Your task to perform on an android device: delete a single message in the gmail app Image 0: 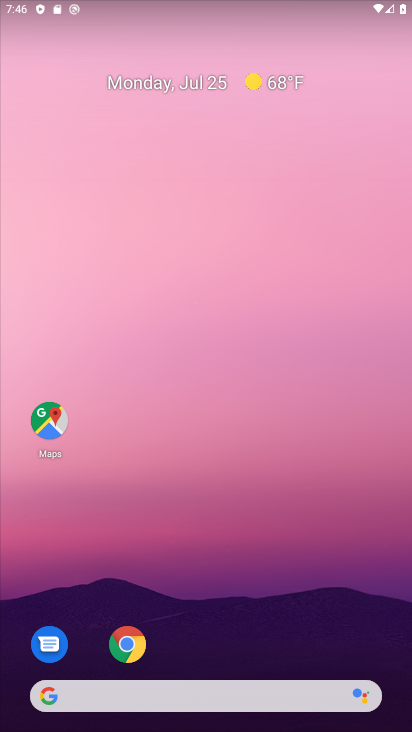
Step 0: drag from (287, 683) to (254, 241)
Your task to perform on an android device: delete a single message in the gmail app Image 1: 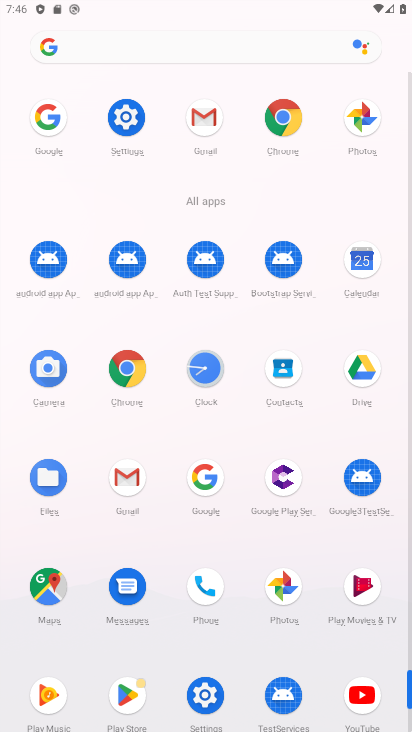
Step 1: click (123, 474)
Your task to perform on an android device: delete a single message in the gmail app Image 2: 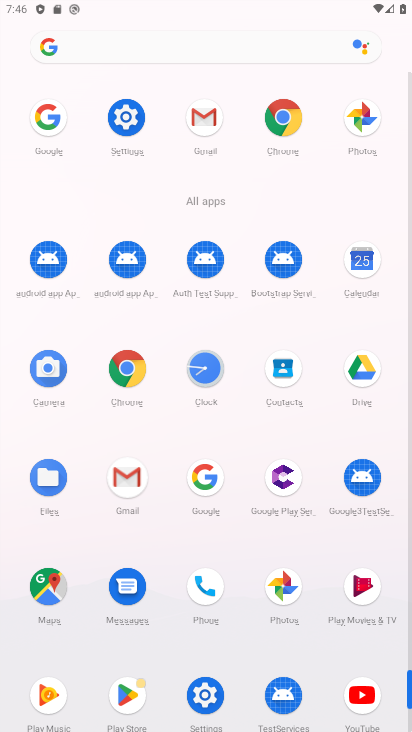
Step 2: click (123, 474)
Your task to perform on an android device: delete a single message in the gmail app Image 3: 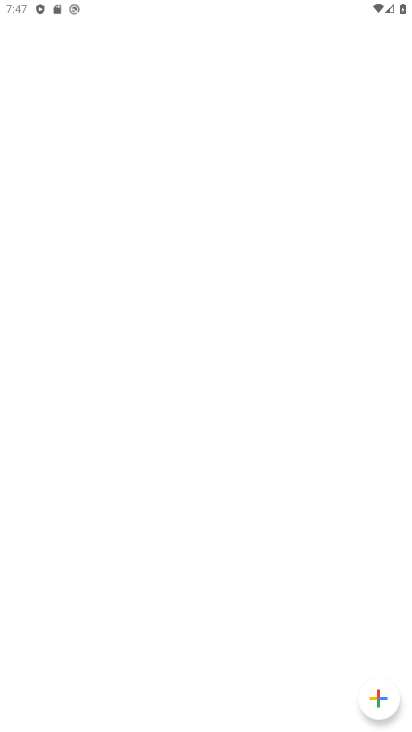
Step 3: click (120, 474)
Your task to perform on an android device: delete a single message in the gmail app Image 4: 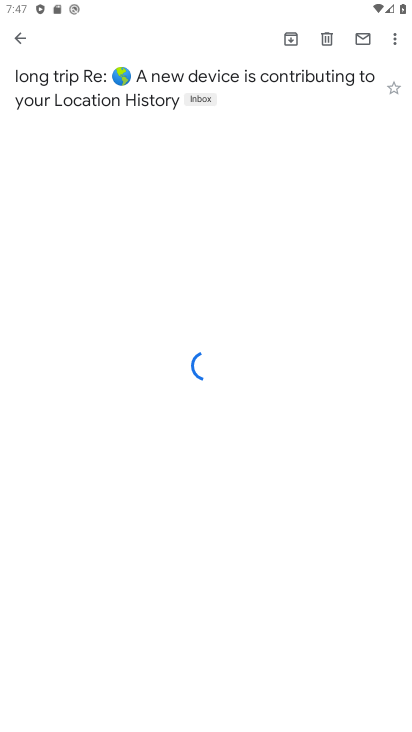
Step 4: click (209, 80)
Your task to perform on an android device: delete a single message in the gmail app Image 5: 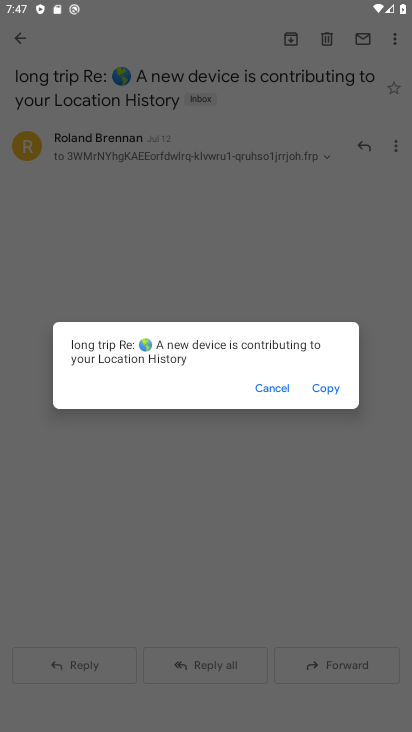
Step 5: click (145, 85)
Your task to perform on an android device: delete a single message in the gmail app Image 6: 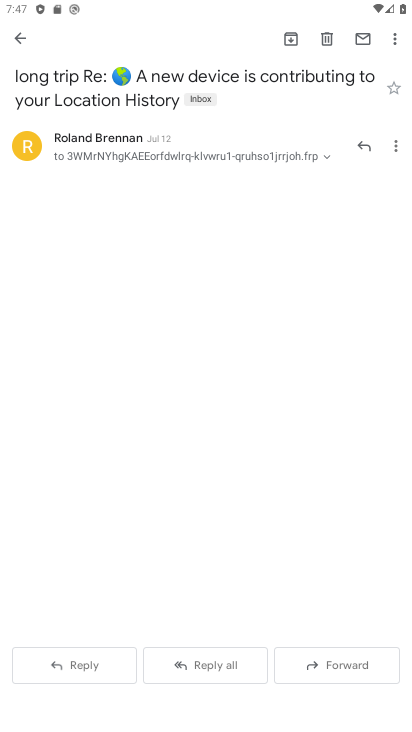
Step 6: click (285, 395)
Your task to perform on an android device: delete a single message in the gmail app Image 7: 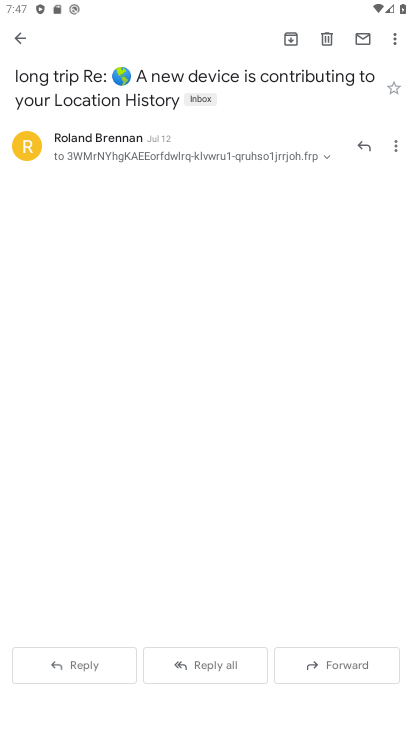
Step 7: click (181, 86)
Your task to perform on an android device: delete a single message in the gmail app Image 8: 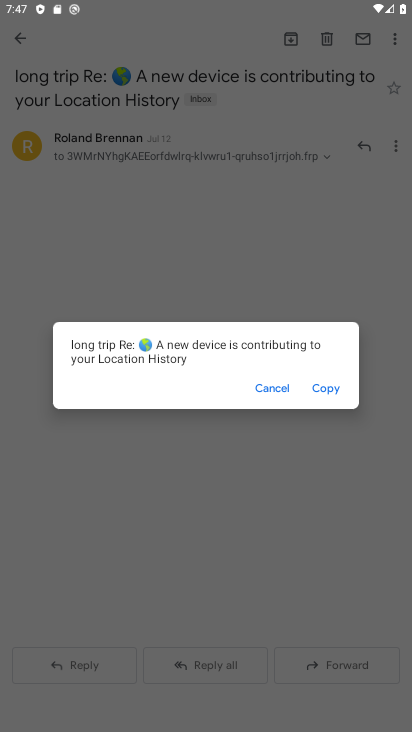
Step 8: click (21, 35)
Your task to perform on an android device: delete a single message in the gmail app Image 9: 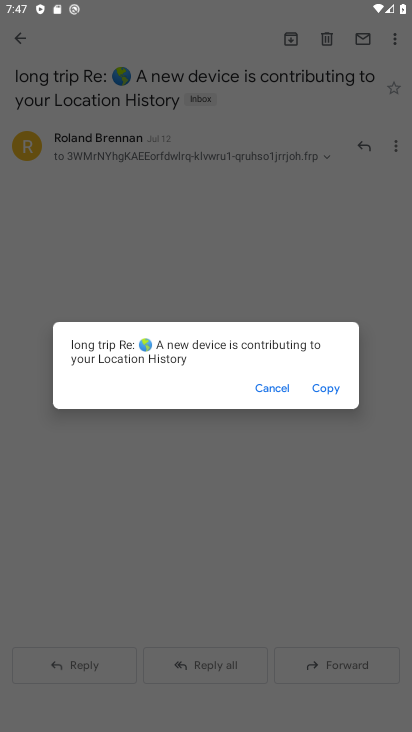
Step 9: click (29, 34)
Your task to perform on an android device: delete a single message in the gmail app Image 10: 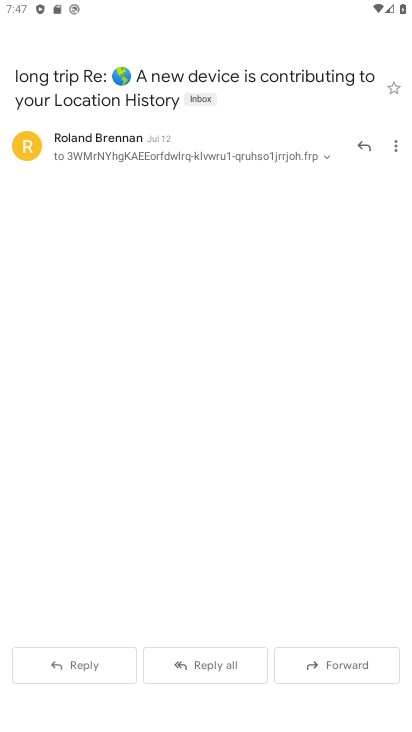
Step 10: click (289, 388)
Your task to perform on an android device: delete a single message in the gmail app Image 11: 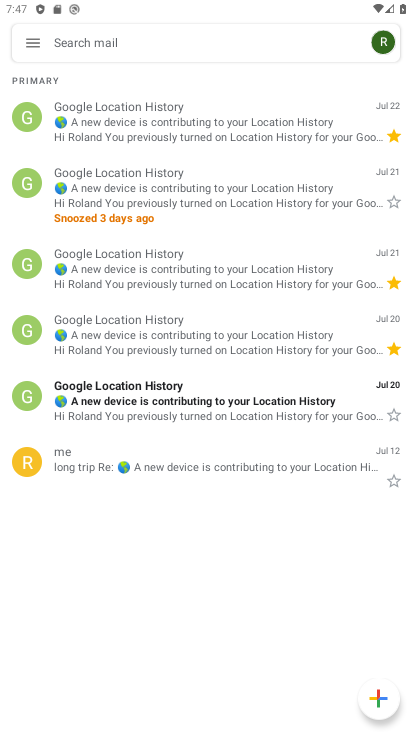
Step 11: click (209, 140)
Your task to perform on an android device: delete a single message in the gmail app Image 12: 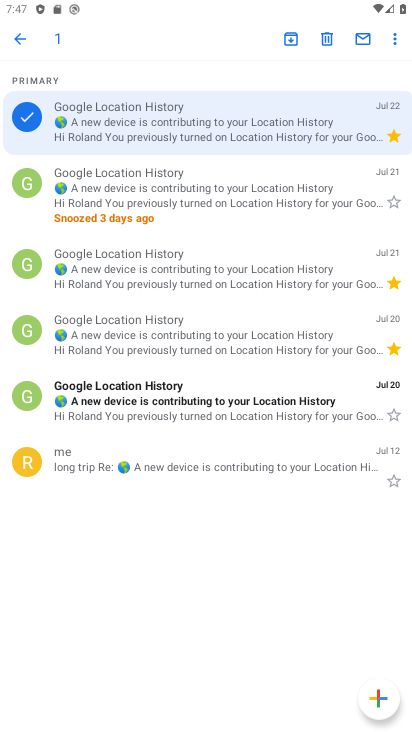
Step 12: click (323, 47)
Your task to perform on an android device: delete a single message in the gmail app Image 13: 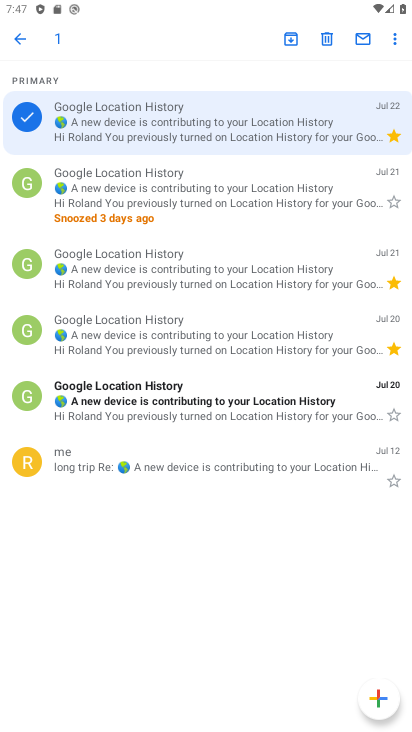
Step 13: click (327, 40)
Your task to perform on an android device: delete a single message in the gmail app Image 14: 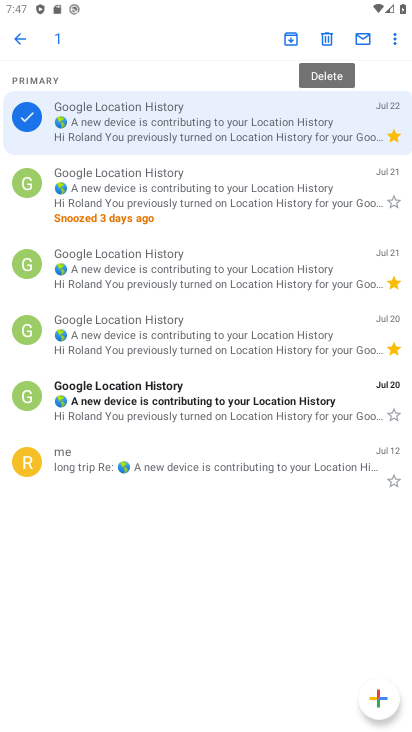
Step 14: click (327, 40)
Your task to perform on an android device: delete a single message in the gmail app Image 15: 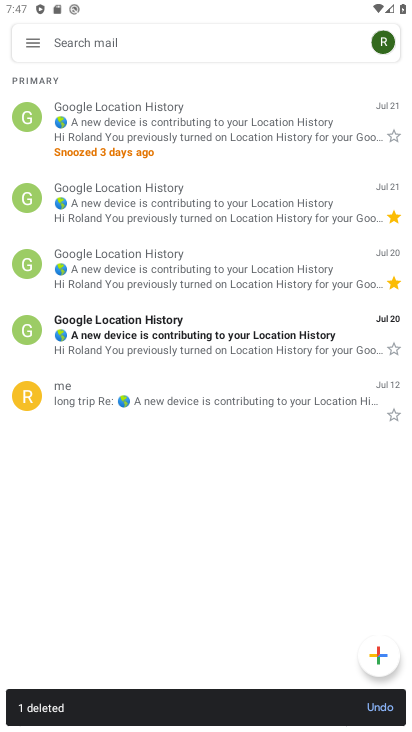
Step 15: task complete